Your task to perform on an android device: delete a single message in the gmail app Image 0: 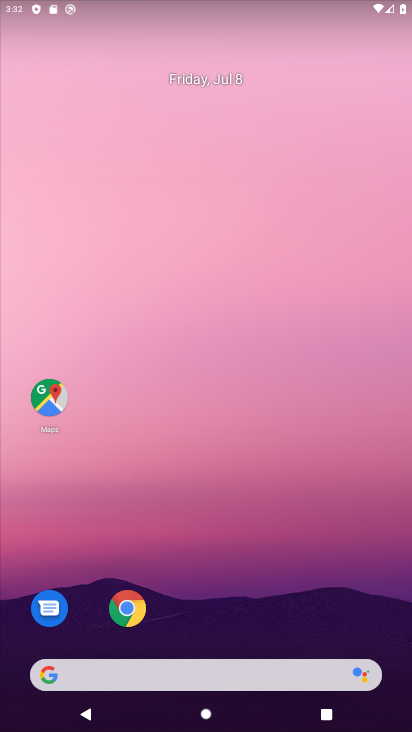
Step 0: drag from (266, 583) to (311, 93)
Your task to perform on an android device: delete a single message in the gmail app Image 1: 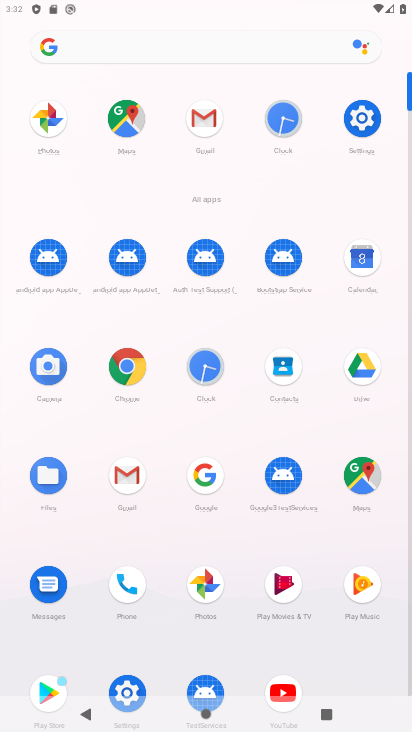
Step 1: click (128, 471)
Your task to perform on an android device: delete a single message in the gmail app Image 2: 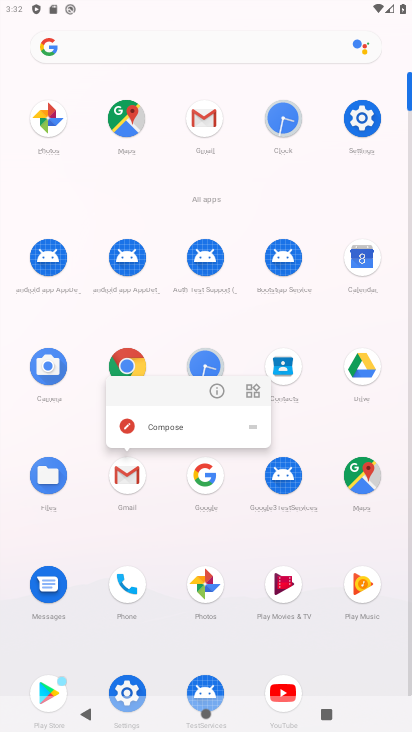
Step 2: click (130, 473)
Your task to perform on an android device: delete a single message in the gmail app Image 3: 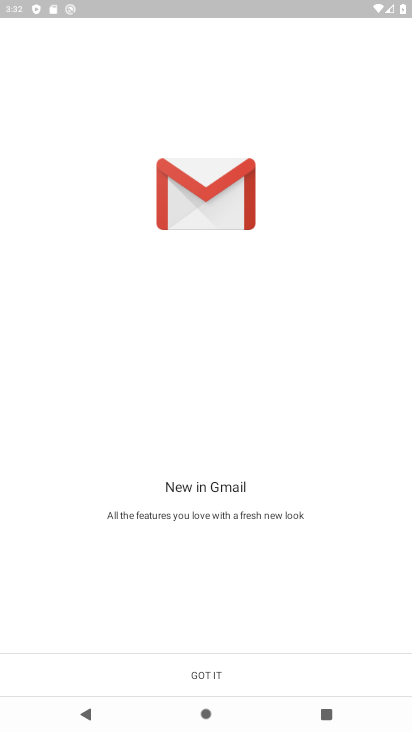
Step 3: click (213, 679)
Your task to perform on an android device: delete a single message in the gmail app Image 4: 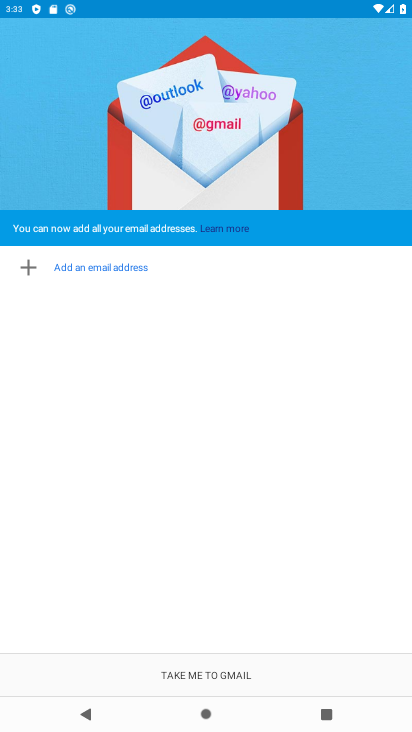
Step 4: click (204, 674)
Your task to perform on an android device: delete a single message in the gmail app Image 5: 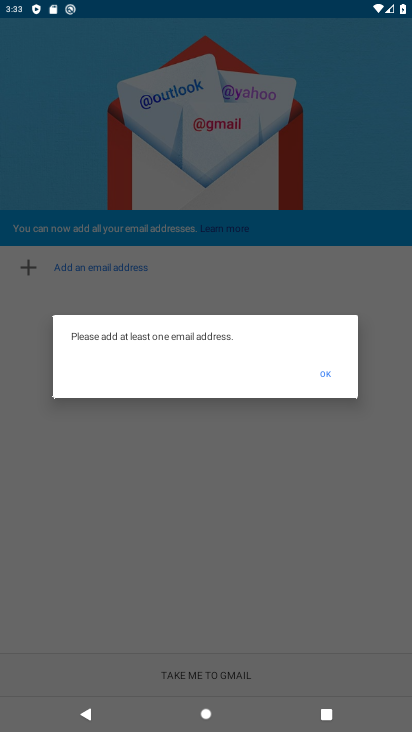
Step 5: task complete